Your task to perform on an android device: open a bookmark in the chrome app Image 0: 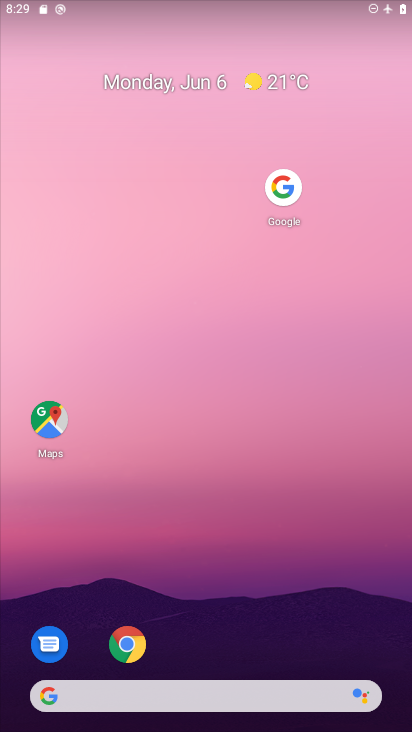
Step 0: drag from (225, 665) to (217, 211)
Your task to perform on an android device: open a bookmark in the chrome app Image 1: 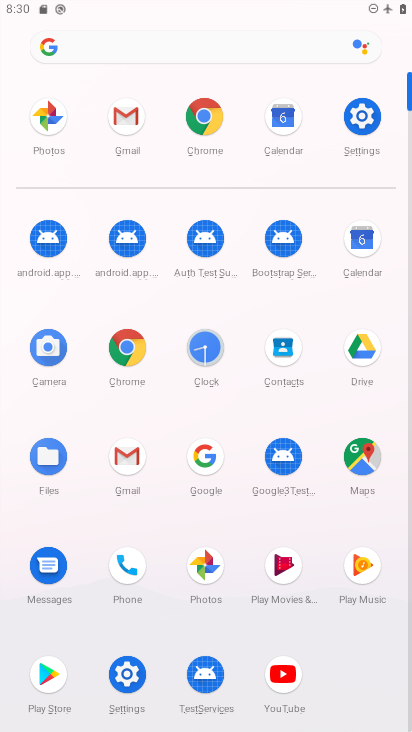
Step 1: click (219, 114)
Your task to perform on an android device: open a bookmark in the chrome app Image 2: 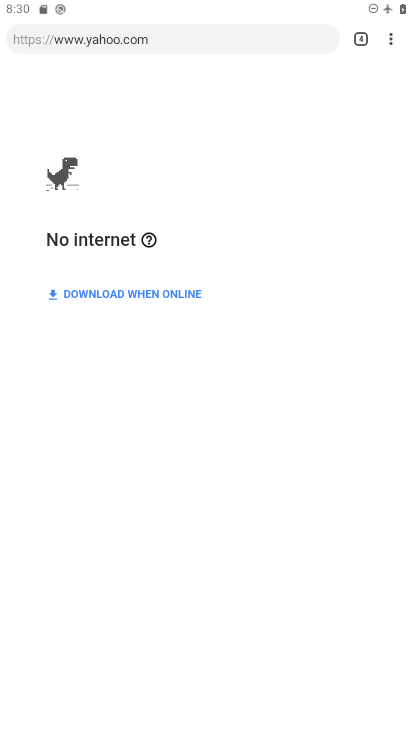
Step 2: click (396, 44)
Your task to perform on an android device: open a bookmark in the chrome app Image 3: 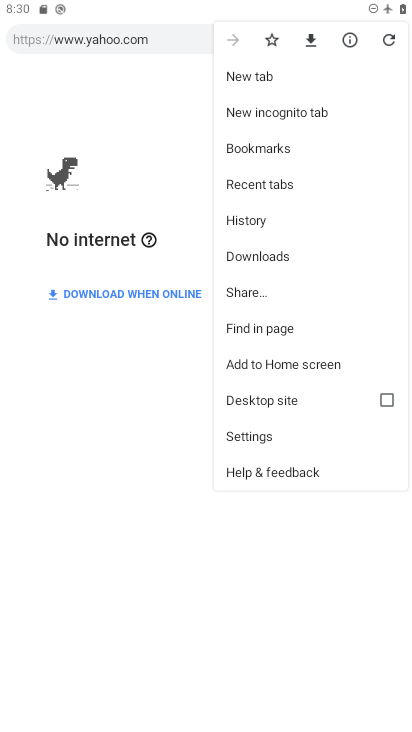
Step 3: click (273, 143)
Your task to perform on an android device: open a bookmark in the chrome app Image 4: 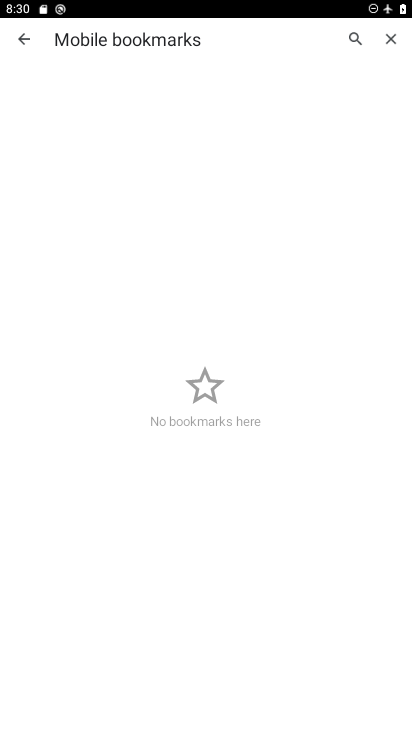
Step 4: task complete